Your task to perform on an android device: change the clock display to show seconds Image 0: 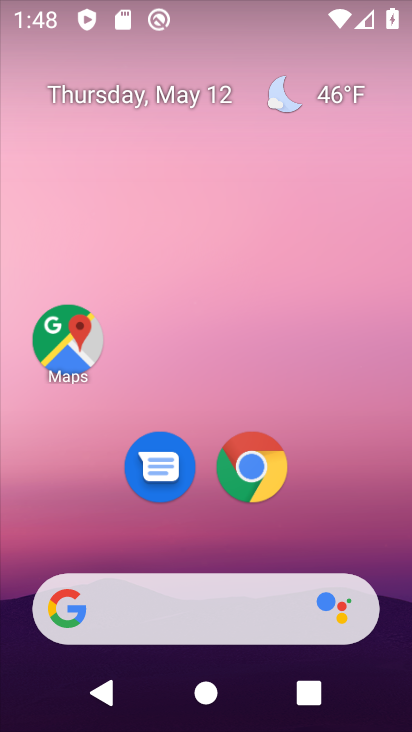
Step 0: drag from (373, 512) to (306, 211)
Your task to perform on an android device: change the clock display to show seconds Image 1: 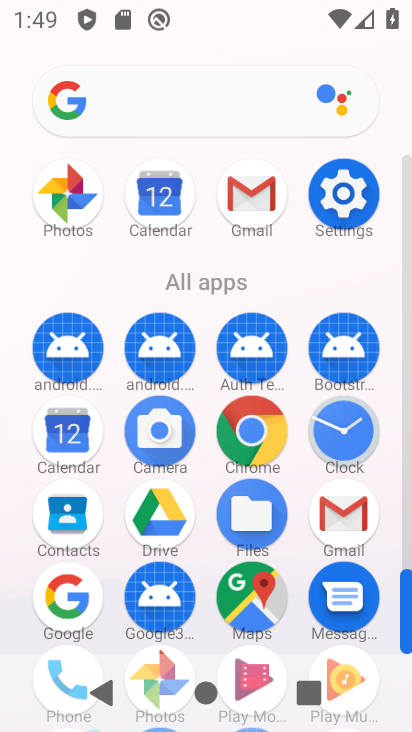
Step 1: click (338, 429)
Your task to perform on an android device: change the clock display to show seconds Image 2: 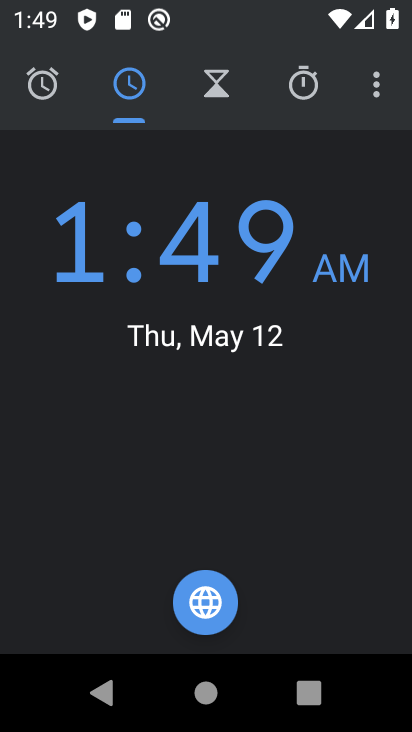
Step 2: click (377, 102)
Your task to perform on an android device: change the clock display to show seconds Image 3: 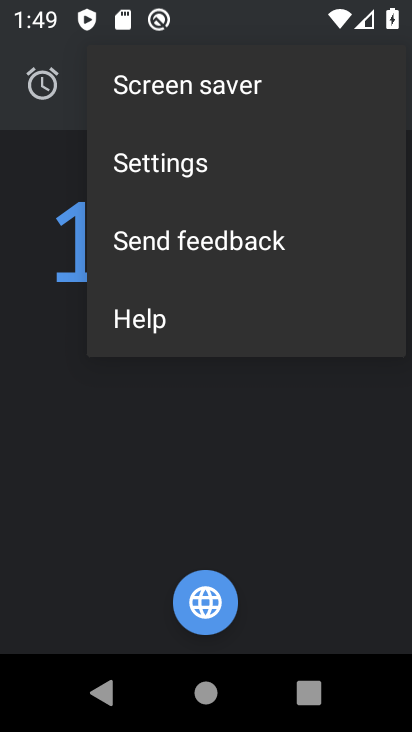
Step 3: click (218, 182)
Your task to perform on an android device: change the clock display to show seconds Image 4: 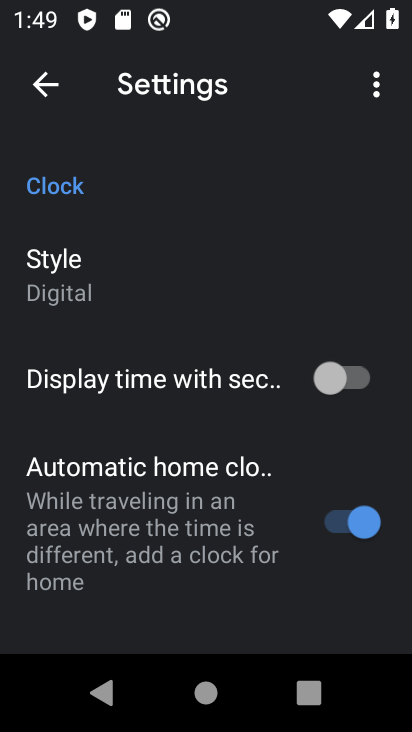
Step 4: click (331, 391)
Your task to perform on an android device: change the clock display to show seconds Image 5: 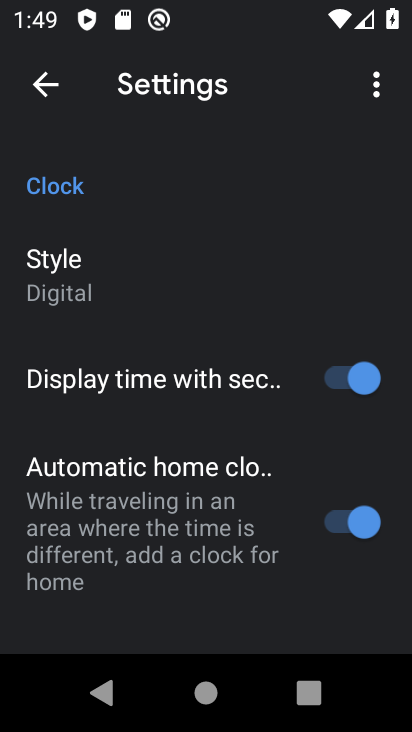
Step 5: task complete